Your task to perform on an android device: toggle notification dots Image 0: 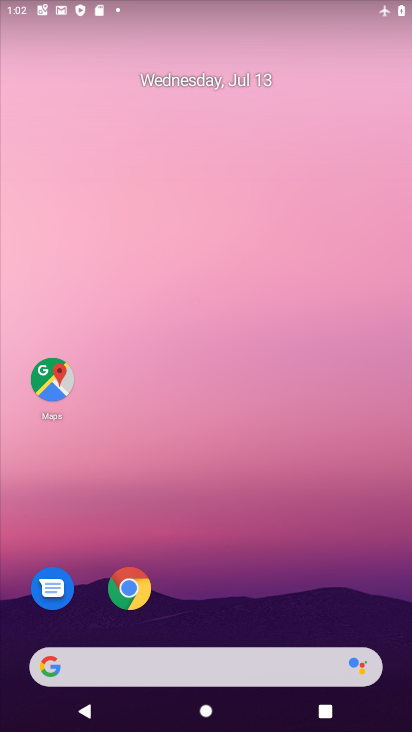
Step 0: press home button
Your task to perform on an android device: toggle notification dots Image 1: 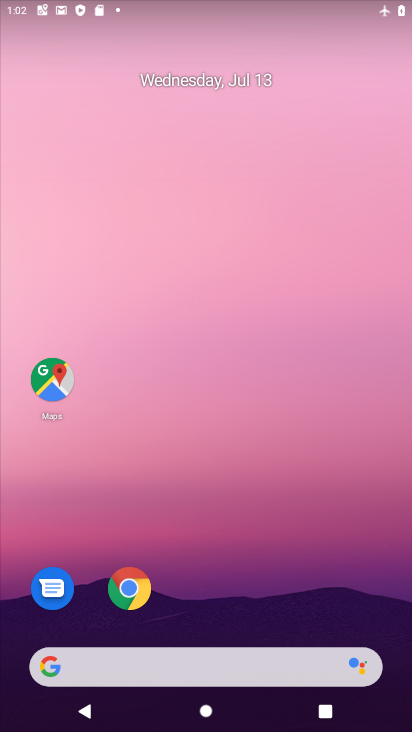
Step 1: drag from (349, 596) to (310, 9)
Your task to perform on an android device: toggle notification dots Image 2: 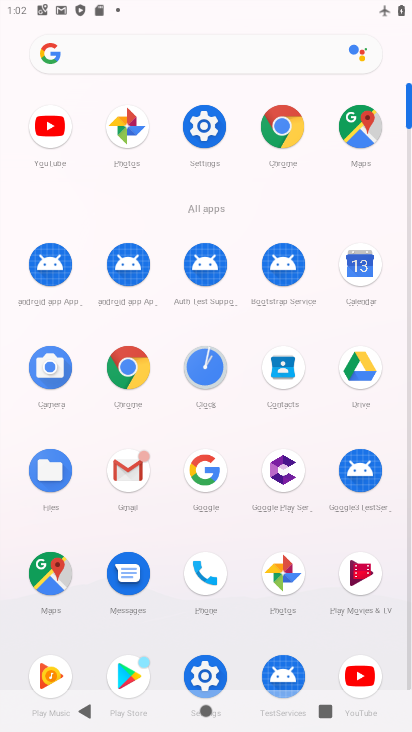
Step 2: click (192, 143)
Your task to perform on an android device: toggle notification dots Image 3: 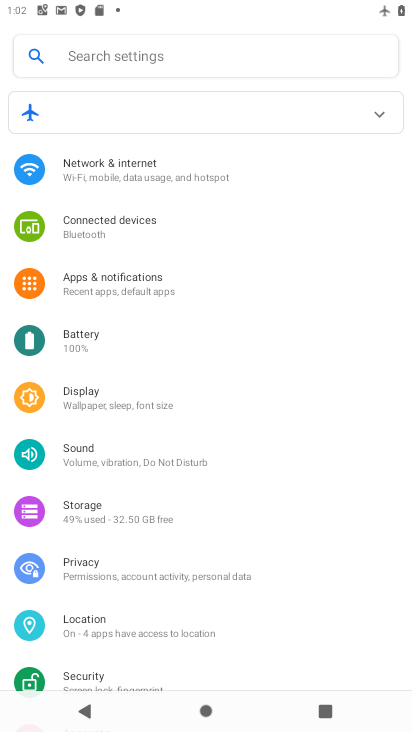
Step 3: click (102, 284)
Your task to perform on an android device: toggle notification dots Image 4: 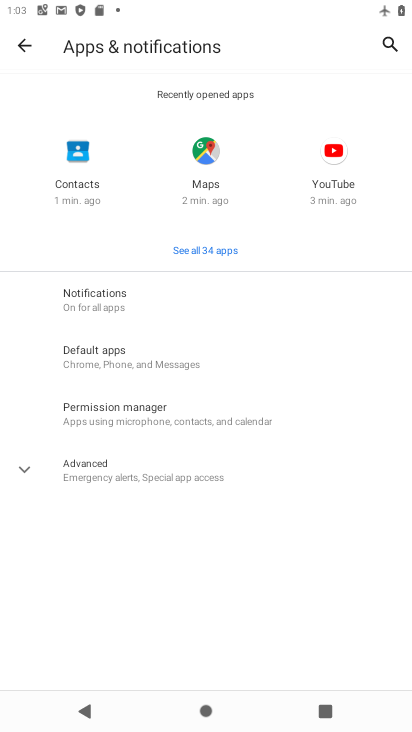
Step 4: click (126, 294)
Your task to perform on an android device: toggle notification dots Image 5: 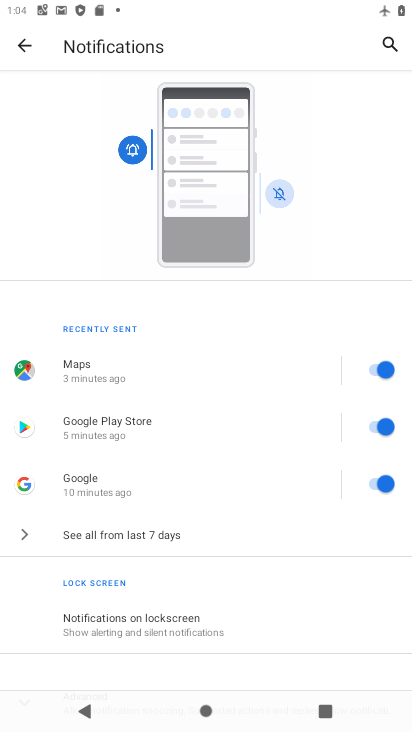
Step 5: drag from (304, 628) to (255, 341)
Your task to perform on an android device: toggle notification dots Image 6: 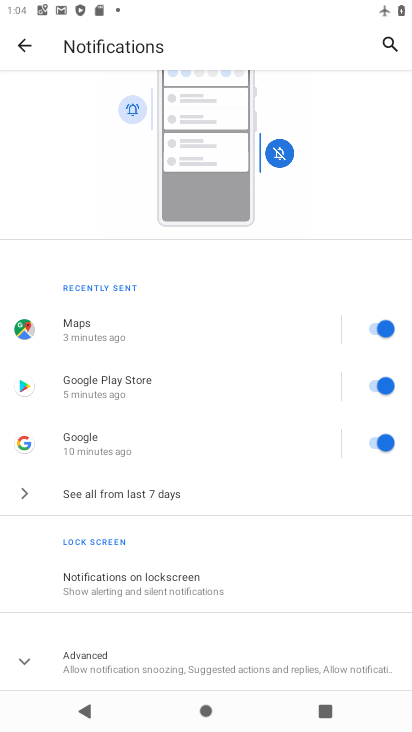
Step 6: click (137, 650)
Your task to perform on an android device: toggle notification dots Image 7: 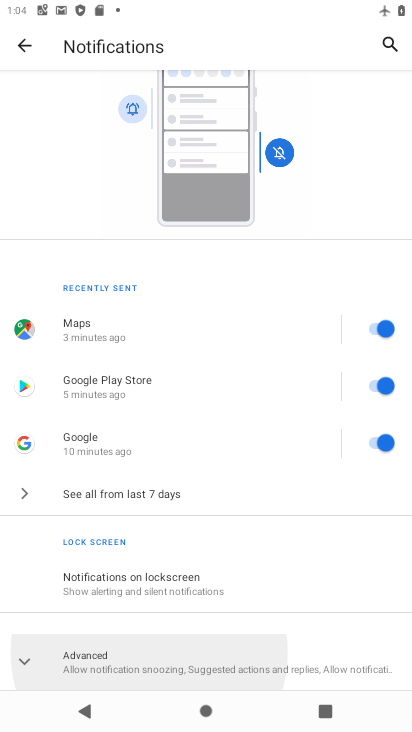
Step 7: drag from (197, 614) to (156, 84)
Your task to perform on an android device: toggle notification dots Image 8: 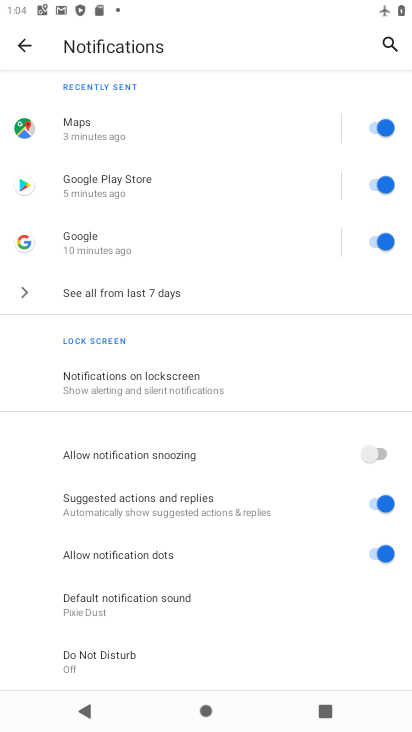
Step 8: click (150, 558)
Your task to perform on an android device: toggle notification dots Image 9: 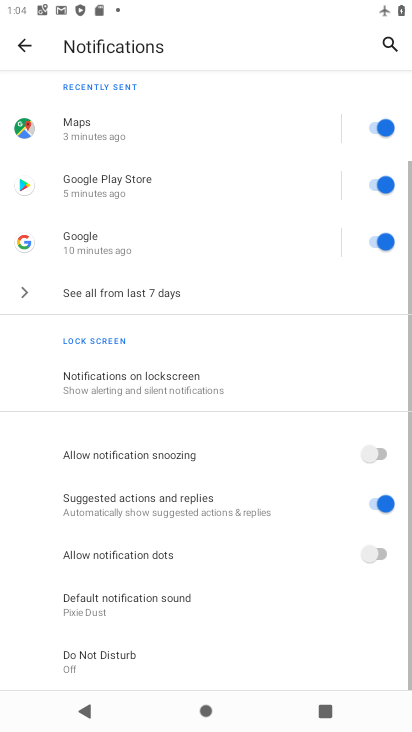
Step 9: task complete